Your task to perform on an android device: allow cookies in the chrome app Image 0: 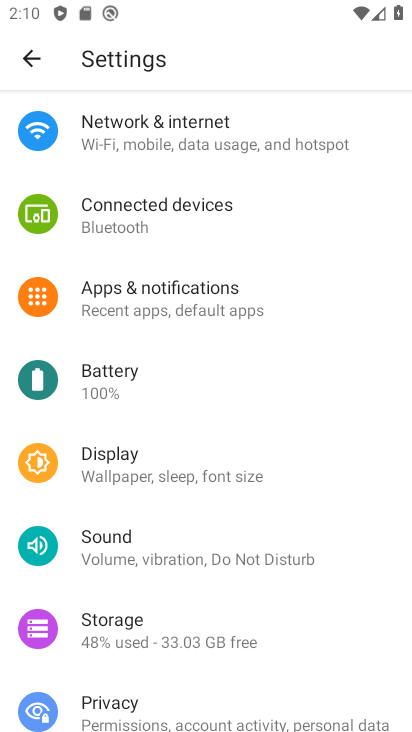
Step 0: press home button
Your task to perform on an android device: allow cookies in the chrome app Image 1: 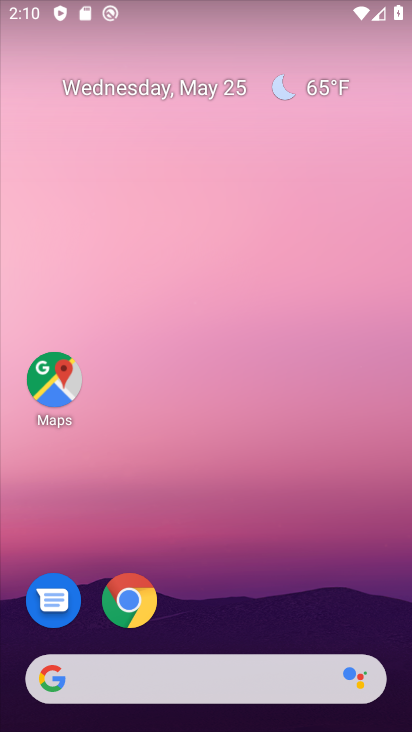
Step 1: click (129, 594)
Your task to perform on an android device: allow cookies in the chrome app Image 2: 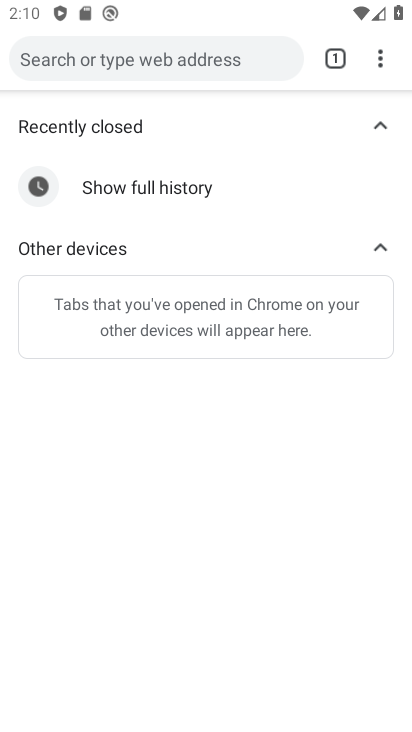
Step 2: click (370, 66)
Your task to perform on an android device: allow cookies in the chrome app Image 3: 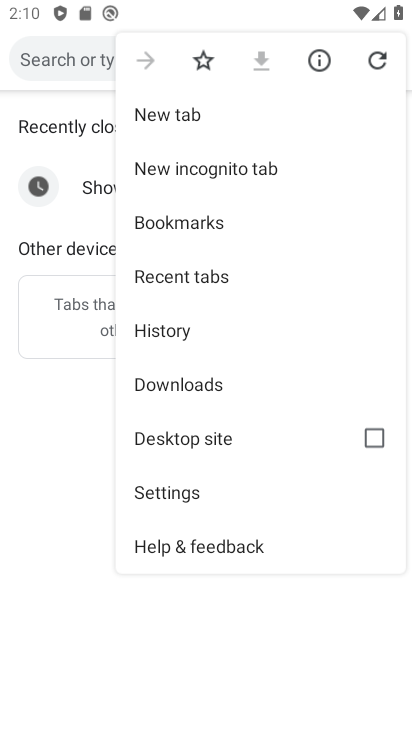
Step 3: click (178, 500)
Your task to perform on an android device: allow cookies in the chrome app Image 4: 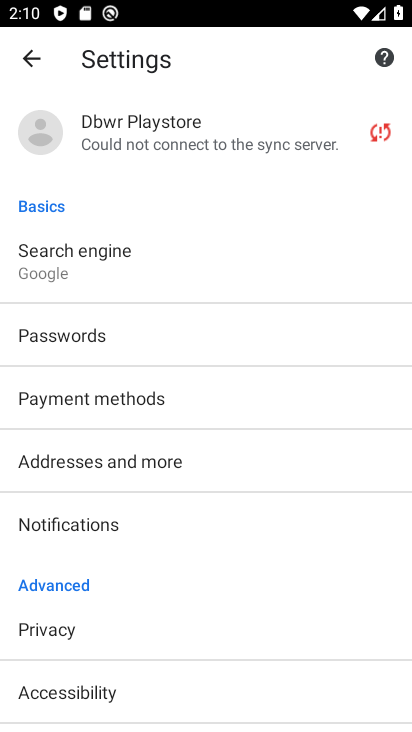
Step 4: drag from (122, 679) to (241, 272)
Your task to perform on an android device: allow cookies in the chrome app Image 5: 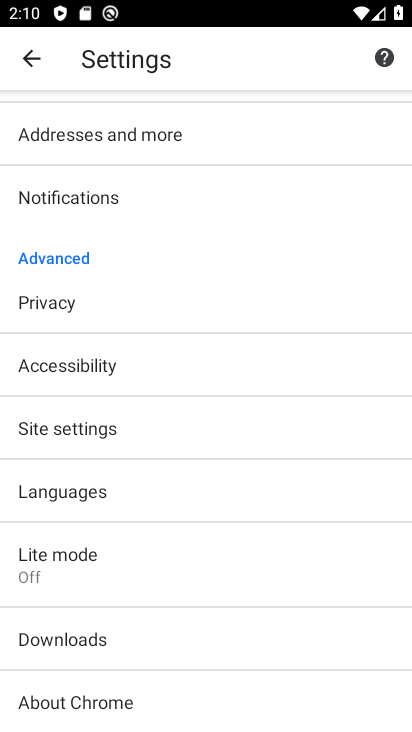
Step 5: click (121, 433)
Your task to perform on an android device: allow cookies in the chrome app Image 6: 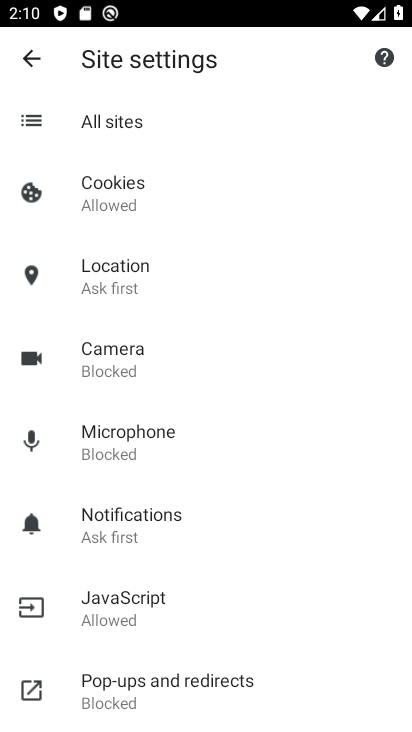
Step 6: click (183, 181)
Your task to perform on an android device: allow cookies in the chrome app Image 7: 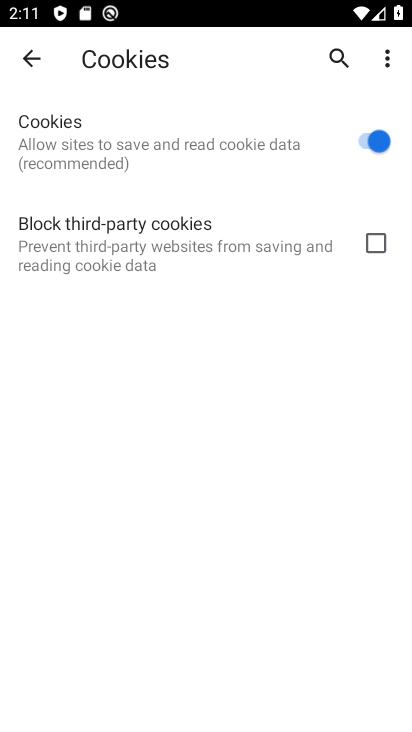
Step 7: task complete